Your task to perform on an android device: Go to internet settings Image 0: 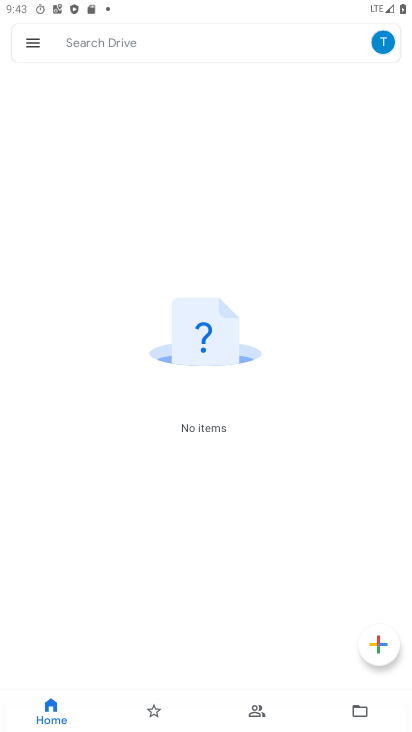
Step 0: press home button
Your task to perform on an android device: Go to internet settings Image 1: 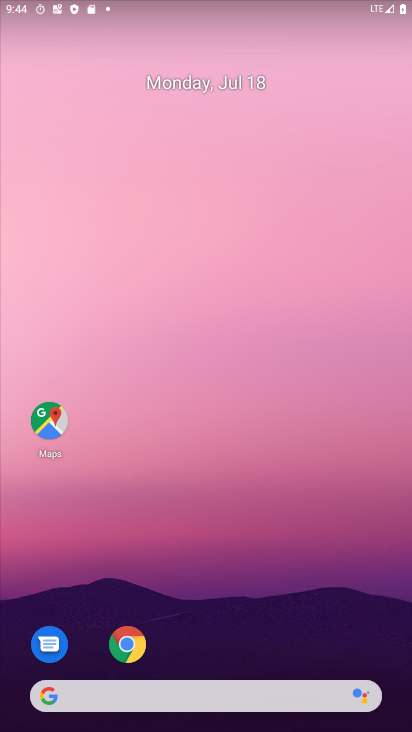
Step 1: drag from (172, 663) to (172, 131)
Your task to perform on an android device: Go to internet settings Image 2: 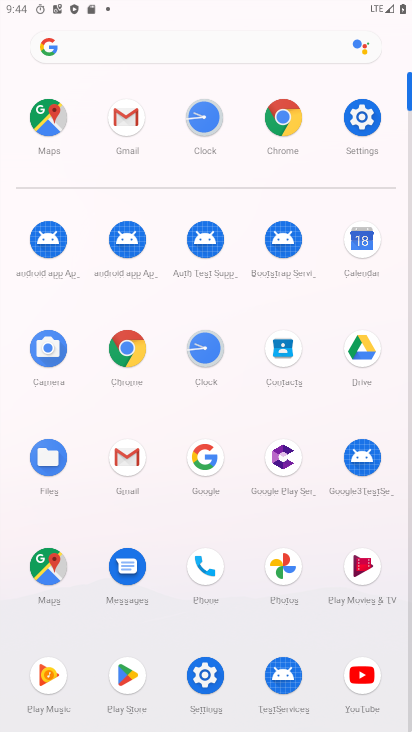
Step 2: click (213, 685)
Your task to perform on an android device: Go to internet settings Image 3: 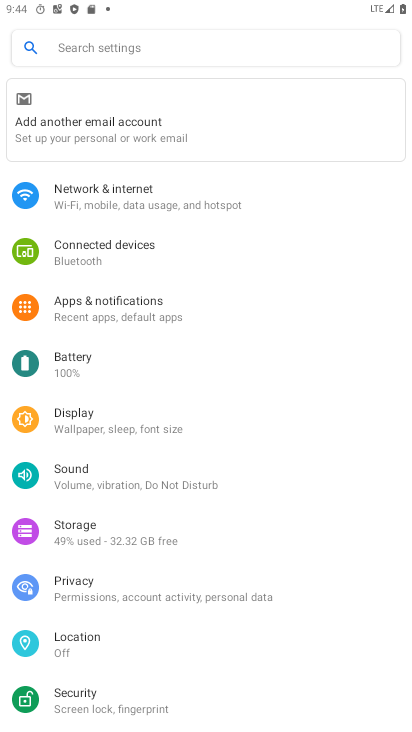
Step 3: click (51, 194)
Your task to perform on an android device: Go to internet settings Image 4: 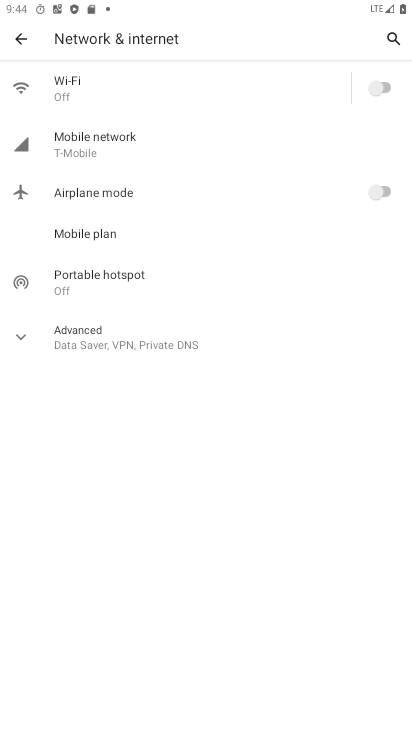
Step 4: click (75, 146)
Your task to perform on an android device: Go to internet settings Image 5: 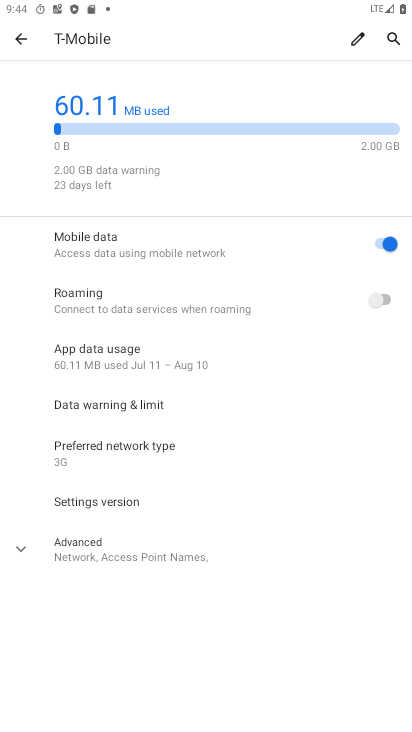
Step 5: task complete